Your task to perform on an android device: toggle location history Image 0: 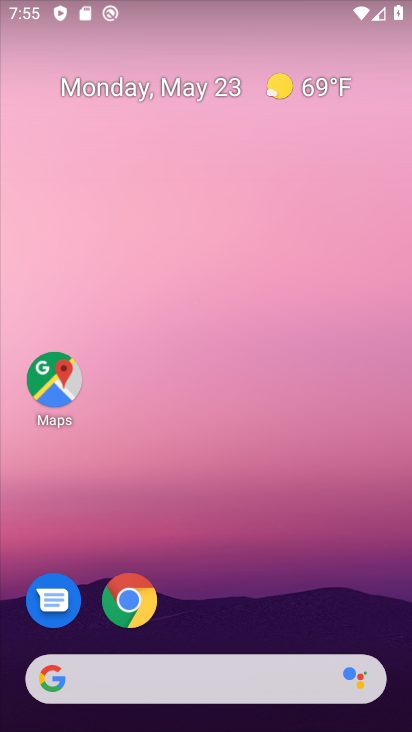
Step 0: drag from (94, 471) to (338, 93)
Your task to perform on an android device: toggle location history Image 1: 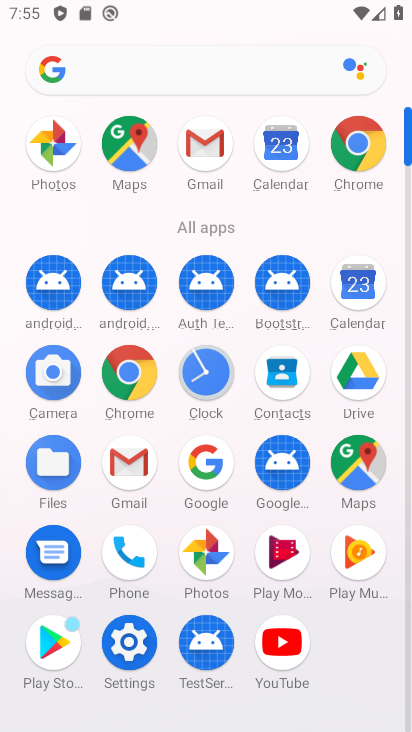
Step 1: click (126, 629)
Your task to perform on an android device: toggle location history Image 2: 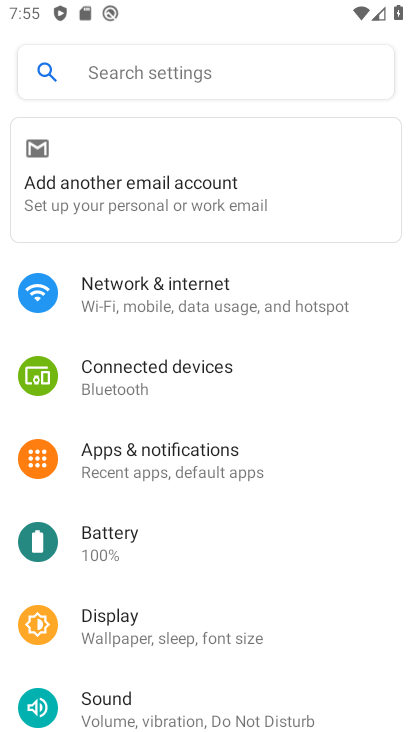
Step 2: drag from (12, 590) to (217, 179)
Your task to perform on an android device: toggle location history Image 3: 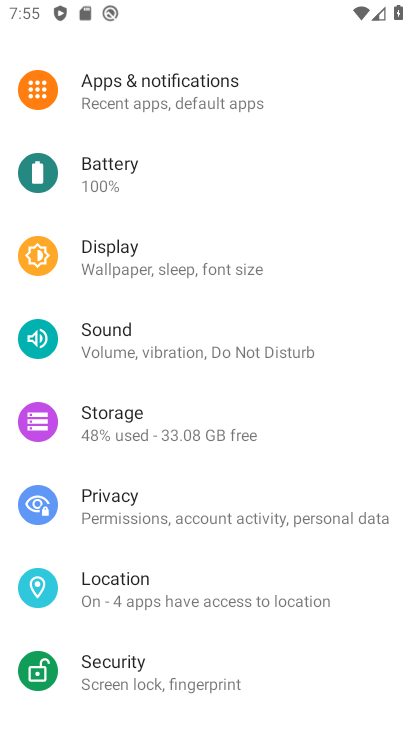
Step 3: click (131, 588)
Your task to perform on an android device: toggle location history Image 4: 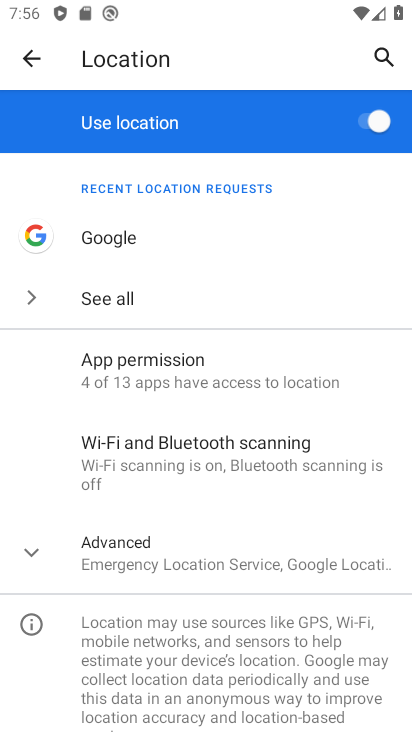
Step 4: click (140, 558)
Your task to perform on an android device: toggle location history Image 5: 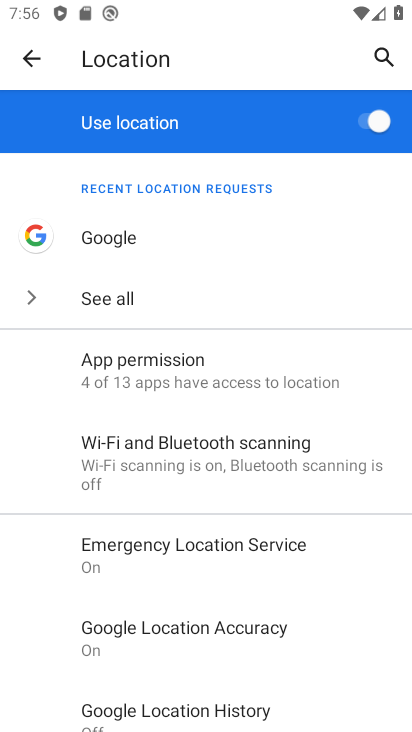
Step 5: drag from (5, 465) to (124, 235)
Your task to perform on an android device: toggle location history Image 6: 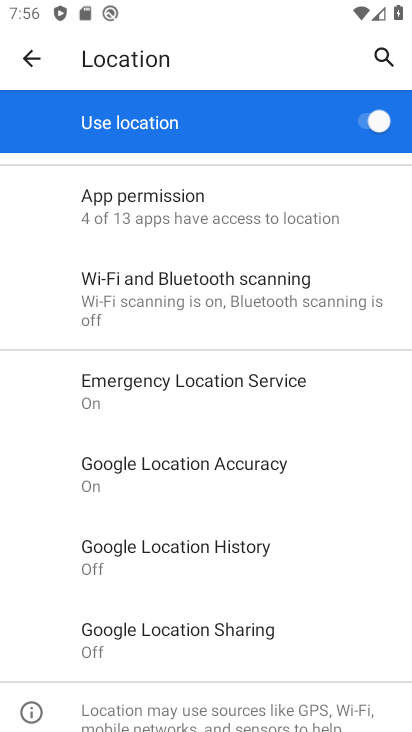
Step 6: click (157, 560)
Your task to perform on an android device: toggle location history Image 7: 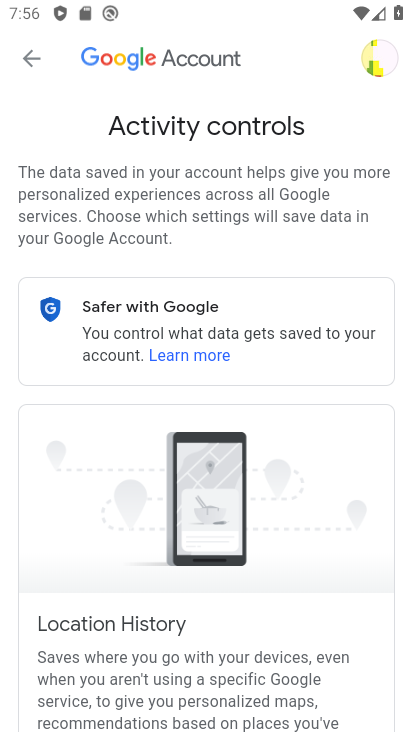
Step 7: drag from (51, 646) to (228, 169)
Your task to perform on an android device: toggle location history Image 8: 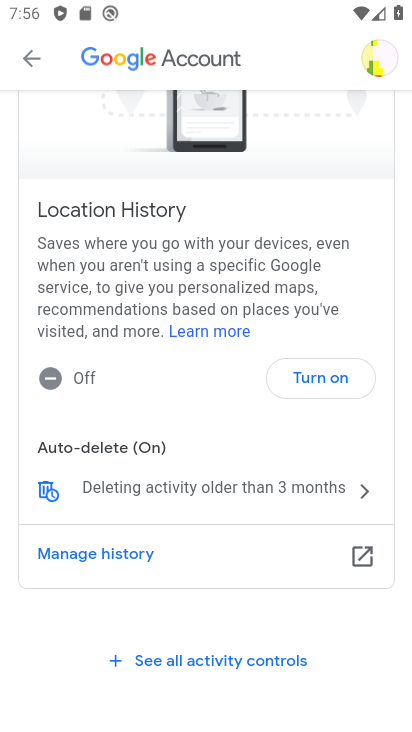
Step 8: click (304, 380)
Your task to perform on an android device: toggle location history Image 9: 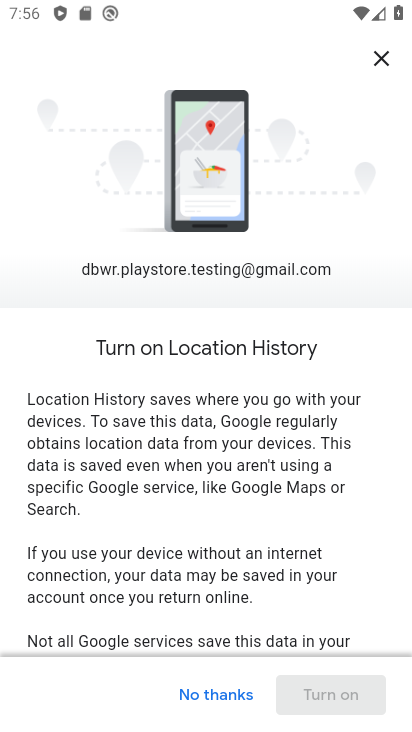
Step 9: drag from (7, 570) to (261, 93)
Your task to perform on an android device: toggle location history Image 10: 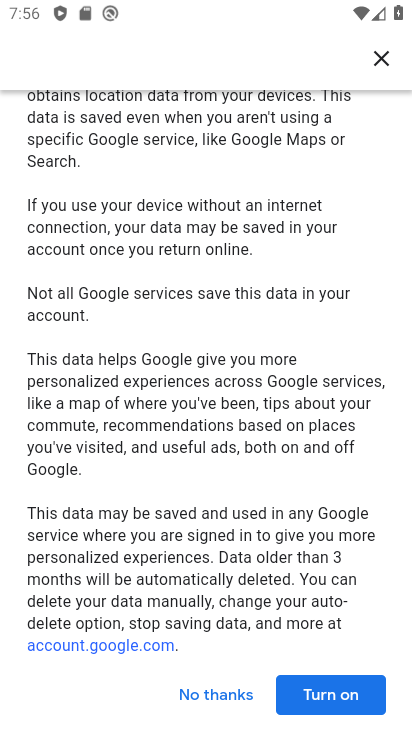
Step 10: click (316, 693)
Your task to perform on an android device: toggle location history Image 11: 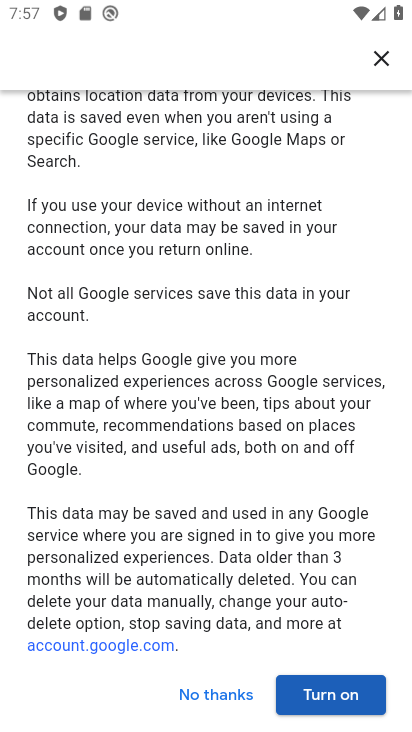
Step 11: click (340, 691)
Your task to perform on an android device: toggle location history Image 12: 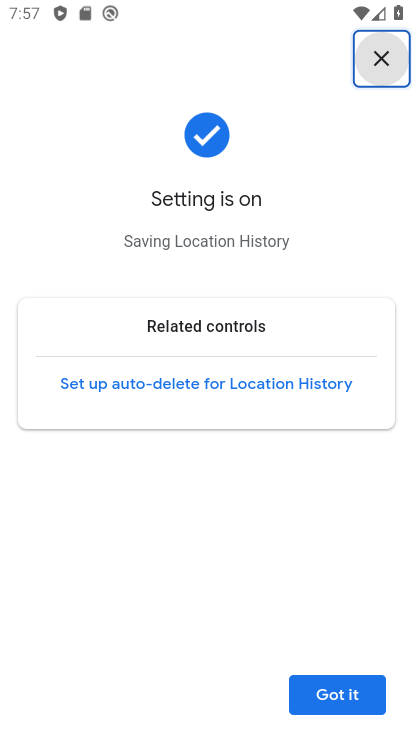
Step 12: click (315, 687)
Your task to perform on an android device: toggle location history Image 13: 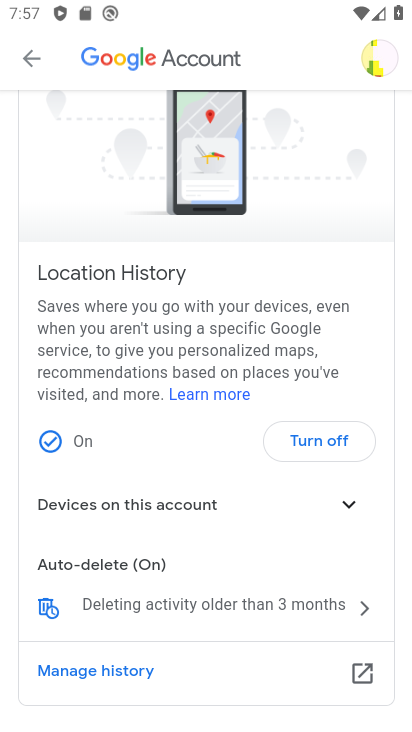
Step 13: task complete